Your task to perform on an android device: What's the weather today? Image 0: 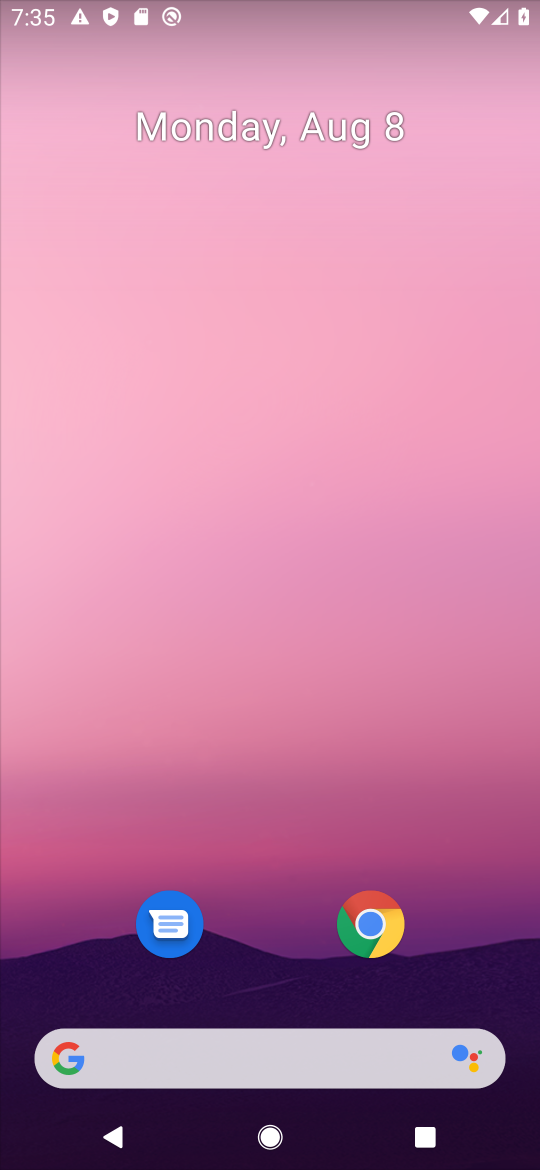
Step 0: drag from (265, 971) to (270, 160)
Your task to perform on an android device: What's the weather today? Image 1: 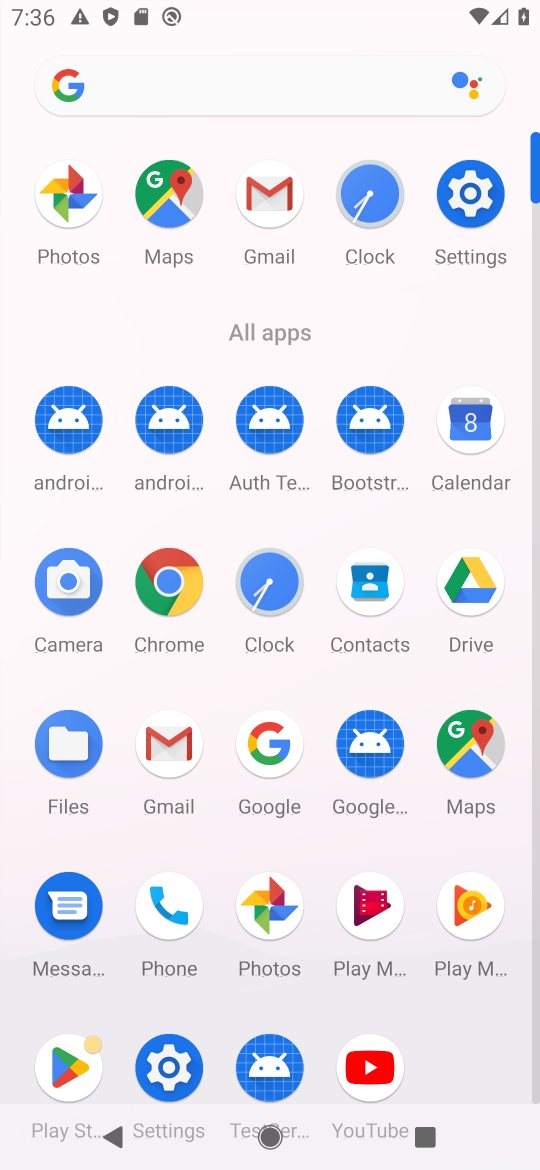
Step 1: click (175, 94)
Your task to perform on an android device: What's the weather today? Image 2: 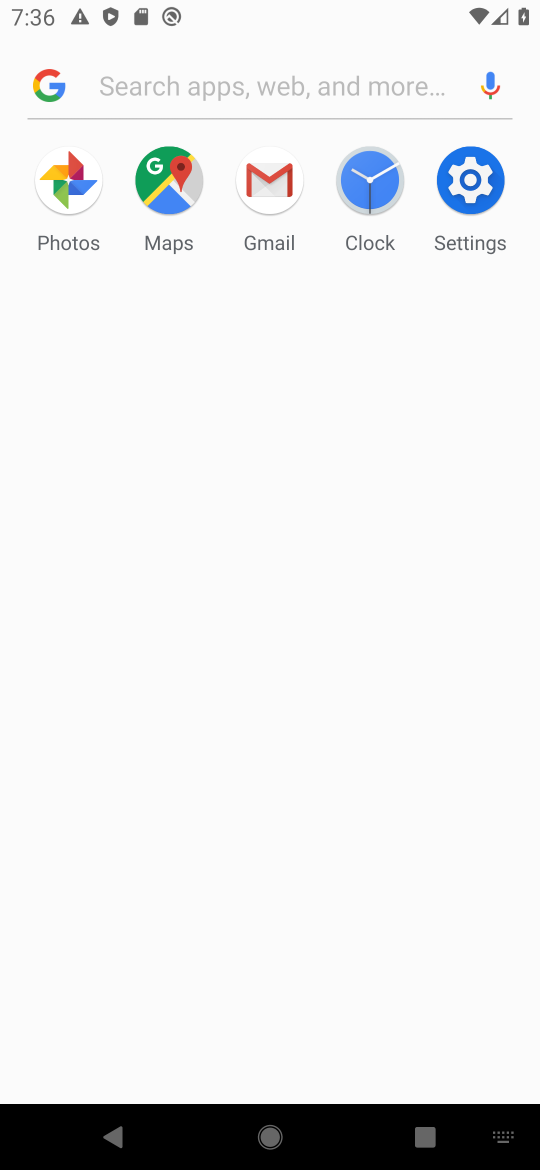
Step 2: click (196, 102)
Your task to perform on an android device: What's the weather today? Image 3: 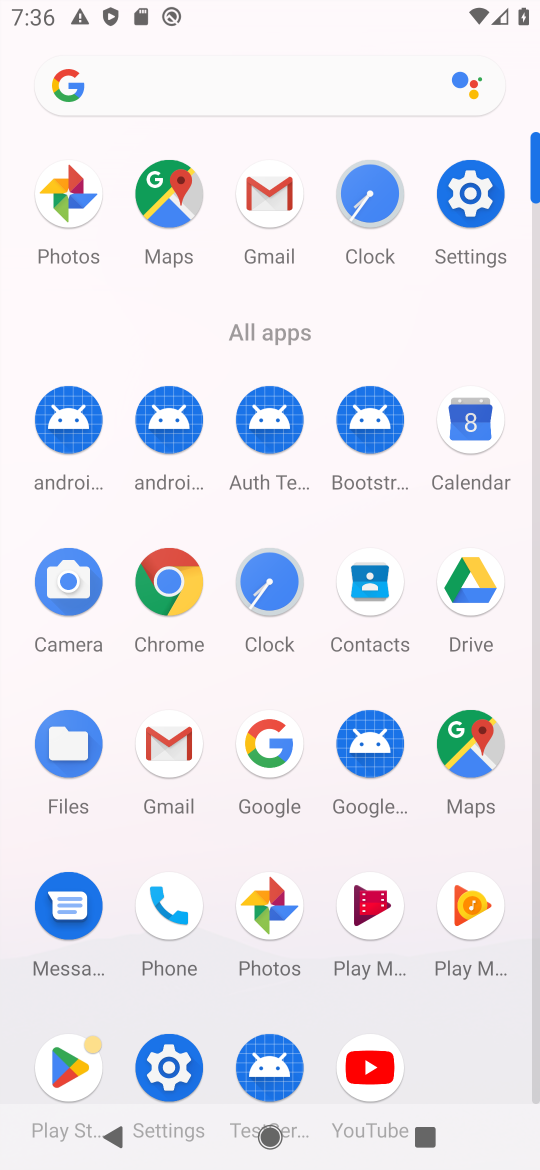
Step 3: type "weather today?"
Your task to perform on an android device: What's the weather today? Image 4: 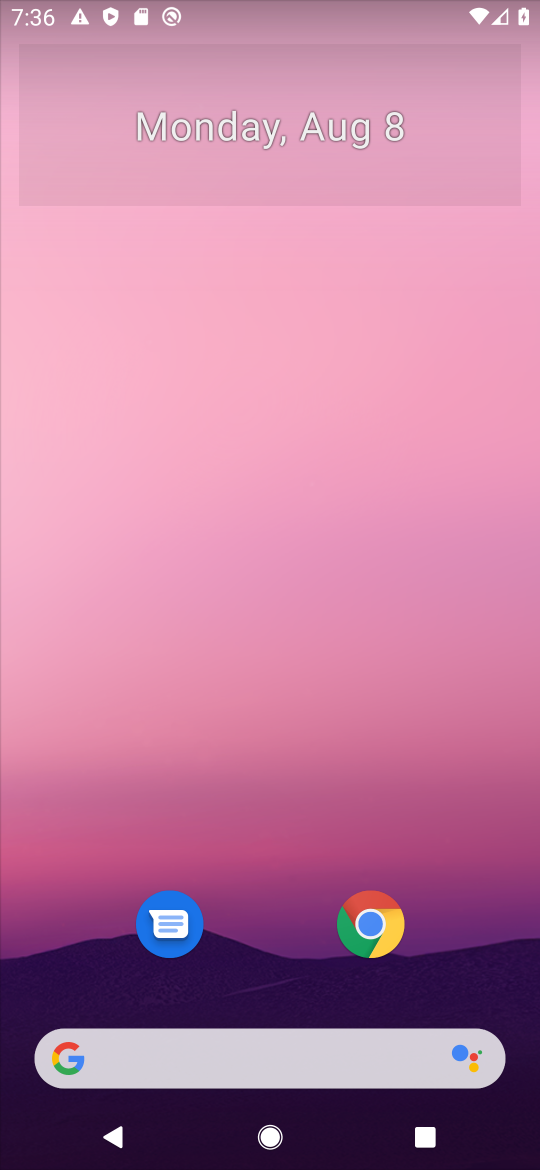
Step 4: type ""
Your task to perform on an android device: What's the weather today? Image 5: 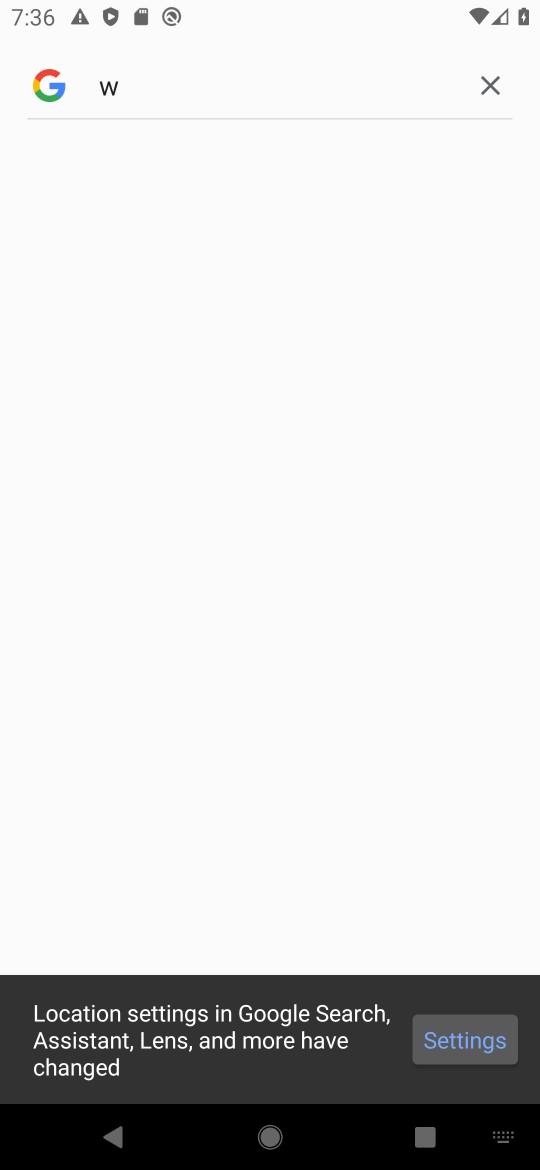
Step 5: click (494, 84)
Your task to perform on an android device: What's the weather today? Image 6: 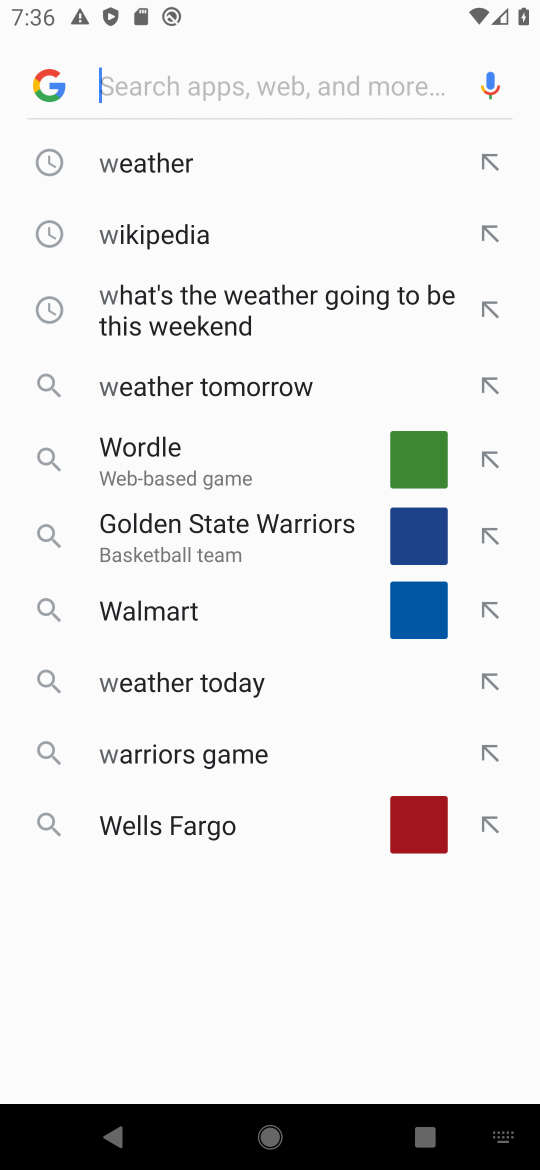
Step 6: click (92, 164)
Your task to perform on an android device: What's the weather today? Image 7: 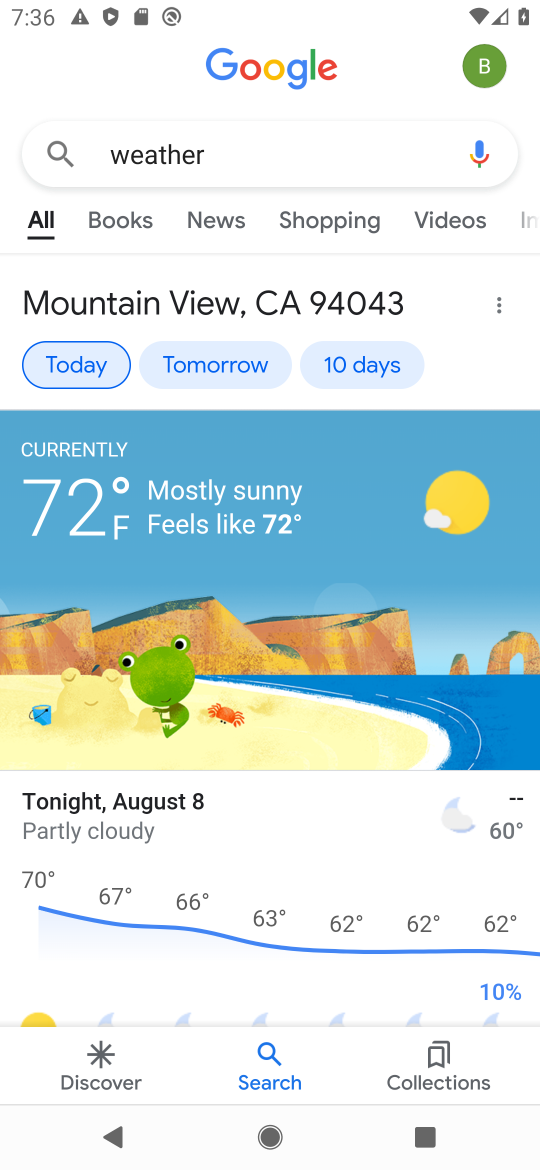
Step 7: task complete